Your task to perform on an android device: What is the news today? Image 0: 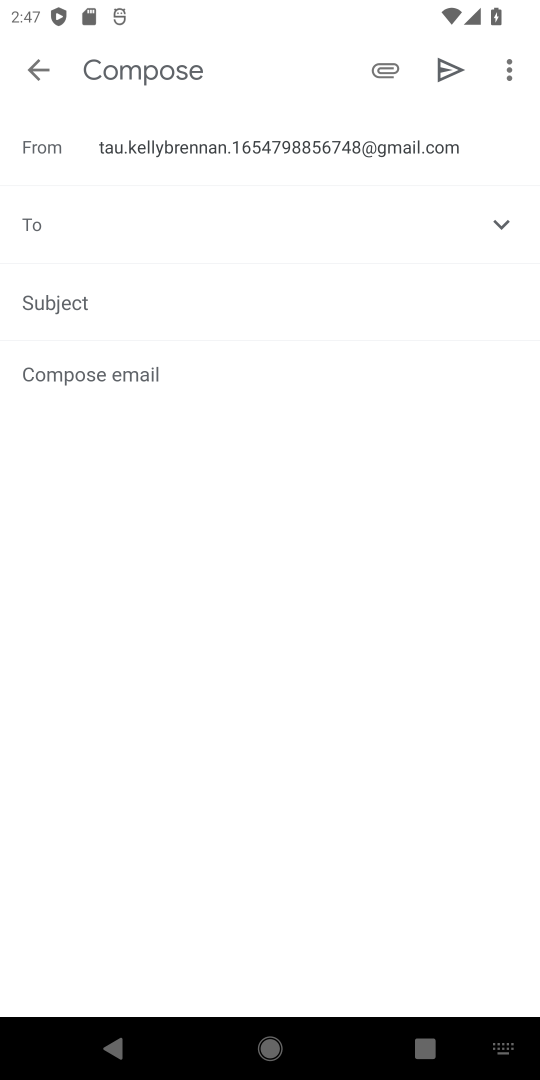
Step 0: press home button
Your task to perform on an android device: What is the news today? Image 1: 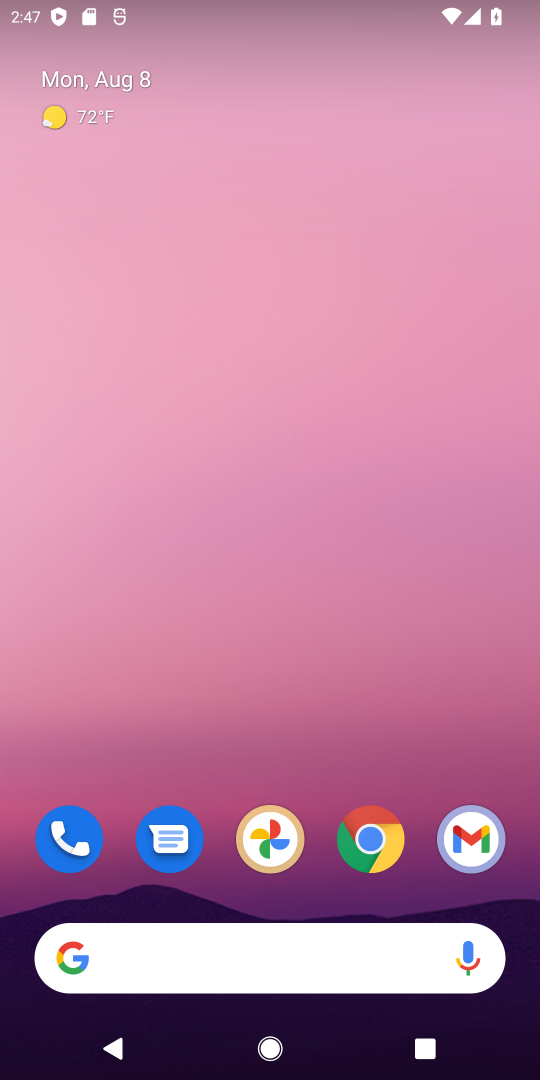
Step 1: task complete